Your task to perform on an android device: What's the weather going to be tomorrow? Image 0: 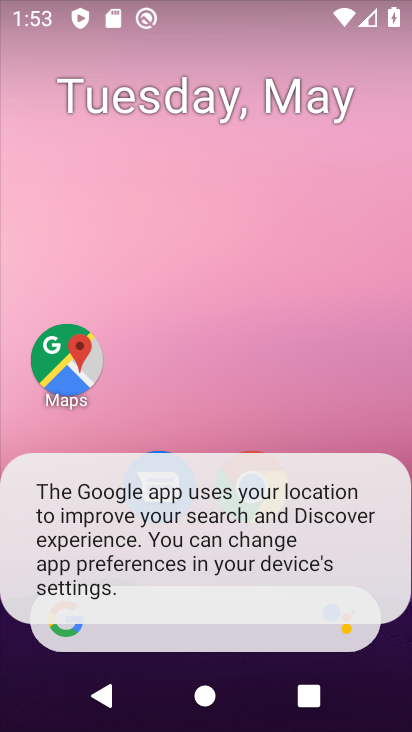
Step 0: drag from (9, 253) to (407, 223)
Your task to perform on an android device: What's the weather going to be tomorrow? Image 1: 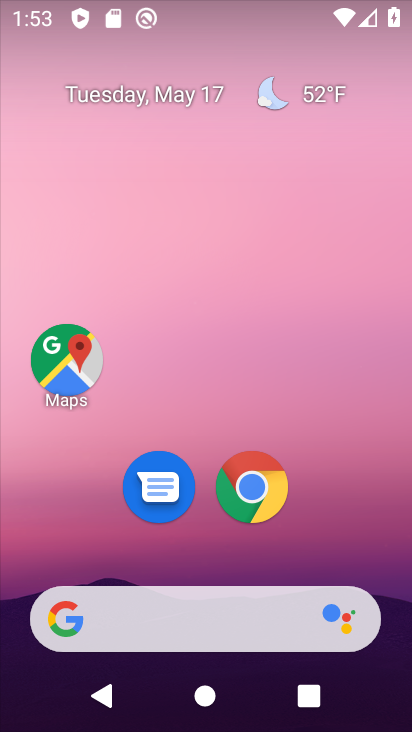
Step 1: drag from (405, 599) to (407, 56)
Your task to perform on an android device: What's the weather going to be tomorrow? Image 2: 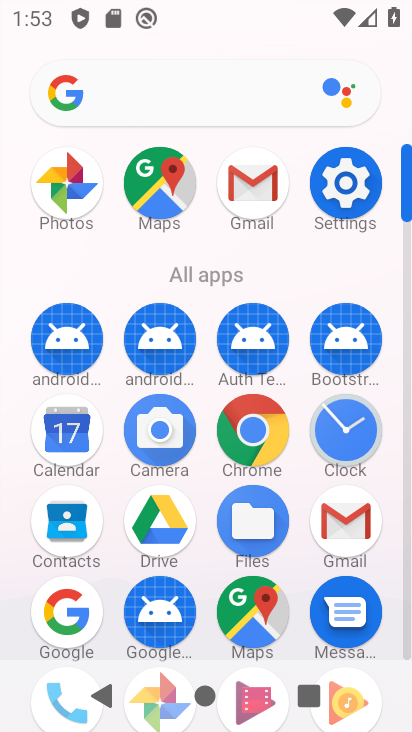
Step 2: click (79, 623)
Your task to perform on an android device: What's the weather going to be tomorrow? Image 3: 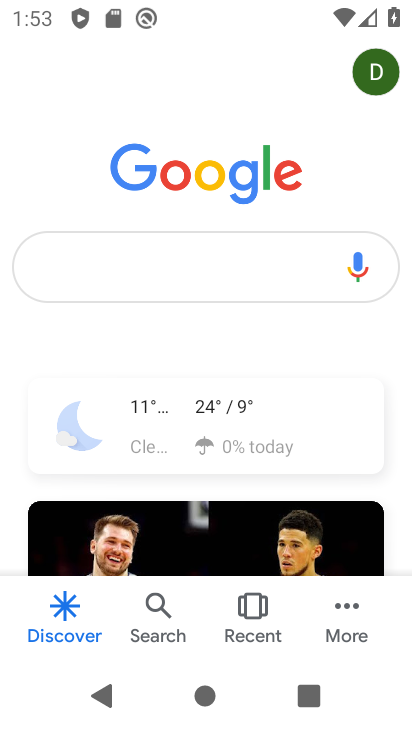
Step 3: task complete